Your task to perform on an android device: Open Reddit.com Image 0: 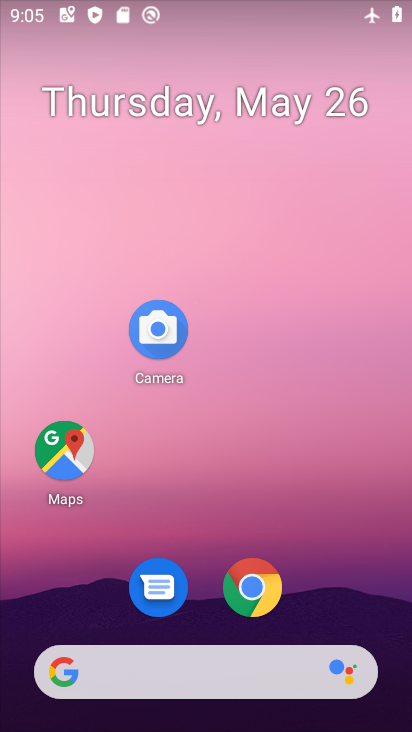
Step 0: click (227, 573)
Your task to perform on an android device: Open Reddit.com Image 1: 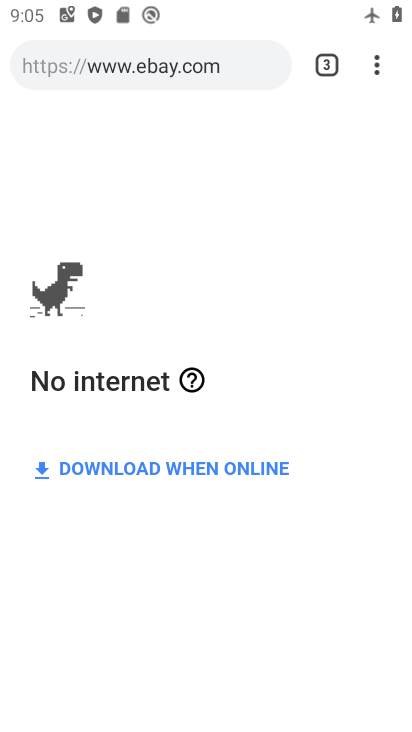
Step 1: click (327, 79)
Your task to perform on an android device: Open Reddit.com Image 2: 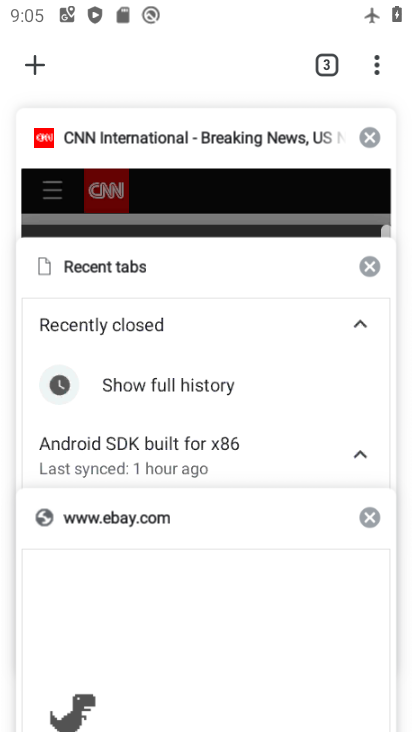
Step 2: click (42, 65)
Your task to perform on an android device: Open Reddit.com Image 3: 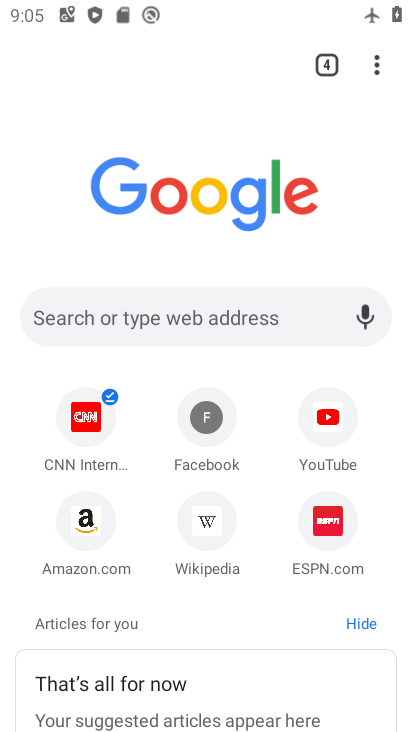
Step 3: click (211, 316)
Your task to perform on an android device: Open Reddit.com Image 4: 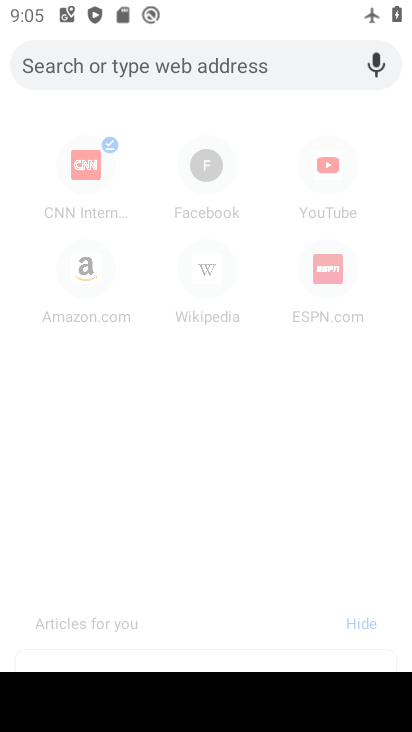
Step 4: click (299, 728)
Your task to perform on an android device: Open Reddit.com Image 5: 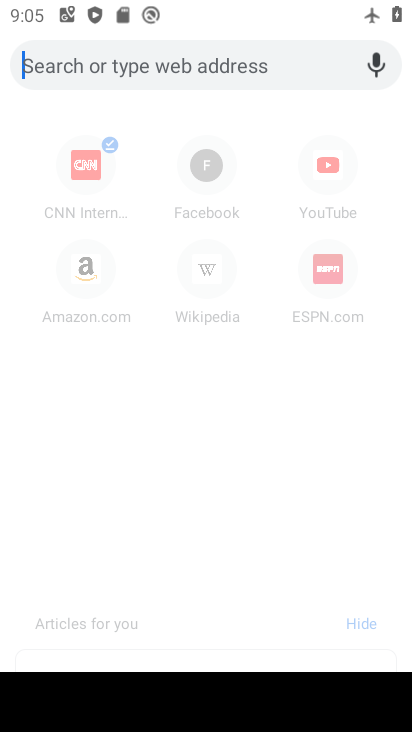
Step 5: type "Reddit.com"
Your task to perform on an android device: Open Reddit.com Image 6: 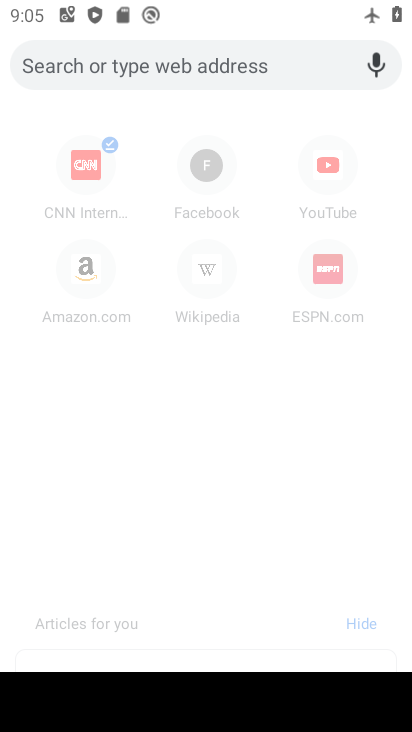
Step 6: task complete